Your task to perform on an android device: clear all cookies in the chrome app Image 0: 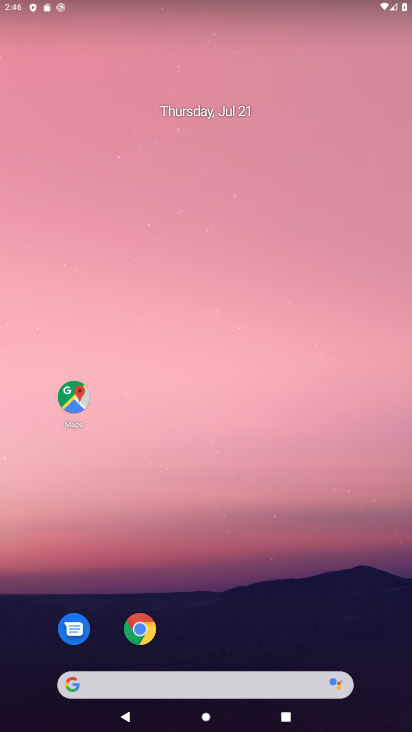
Step 0: drag from (239, 637) to (216, 2)
Your task to perform on an android device: clear all cookies in the chrome app Image 1: 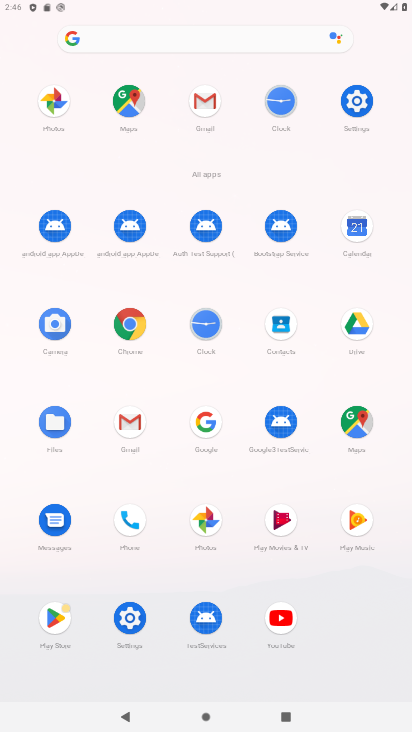
Step 1: click (129, 331)
Your task to perform on an android device: clear all cookies in the chrome app Image 2: 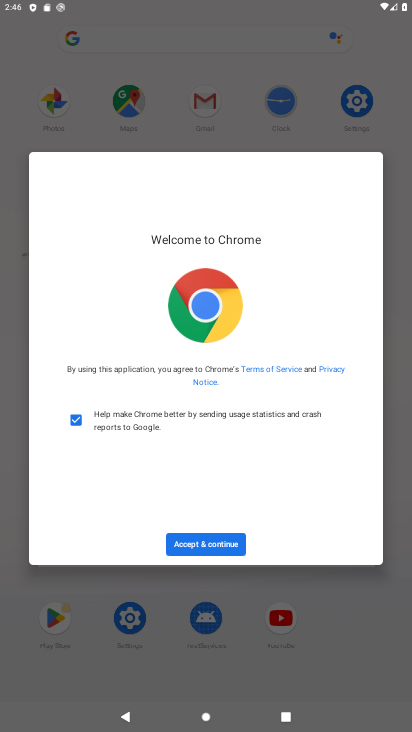
Step 2: click (207, 546)
Your task to perform on an android device: clear all cookies in the chrome app Image 3: 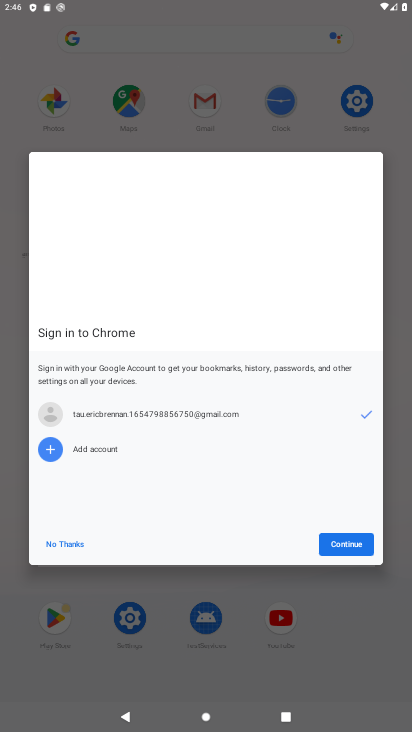
Step 3: click (345, 545)
Your task to perform on an android device: clear all cookies in the chrome app Image 4: 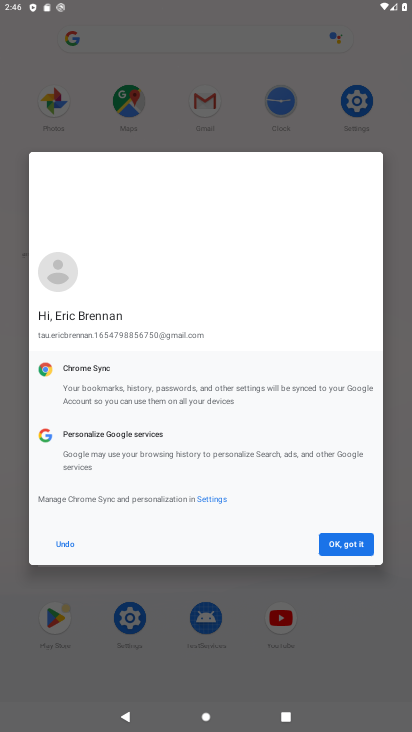
Step 4: click (345, 545)
Your task to perform on an android device: clear all cookies in the chrome app Image 5: 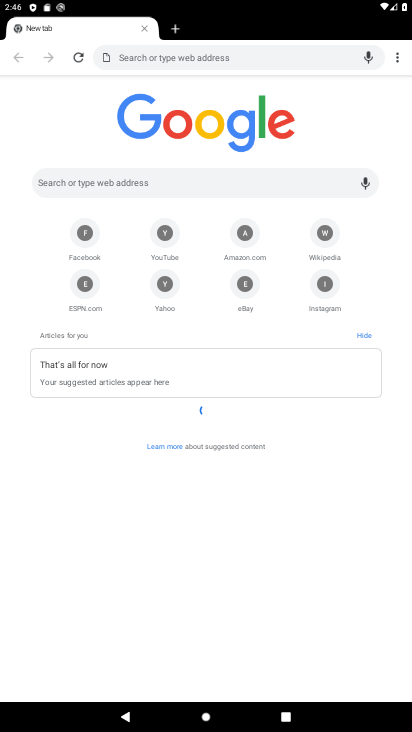
Step 5: click (401, 57)
Your task to perform on an android device: clear all cookies in the chrome app Image 6: 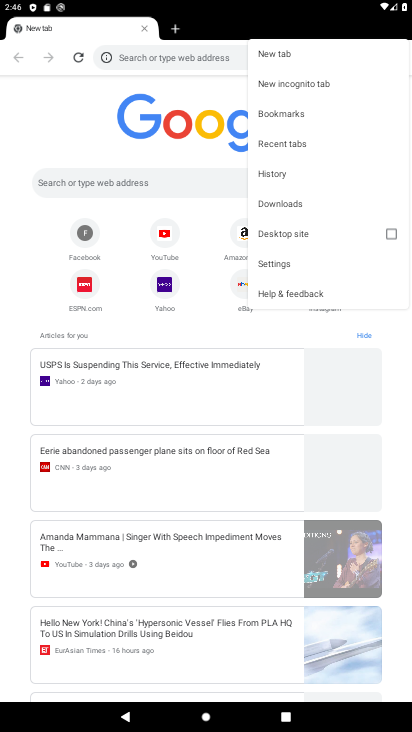
Step 6: click (270, 174)
Your task to perform on an android device: clear all cookies in the chrome app Image 7: 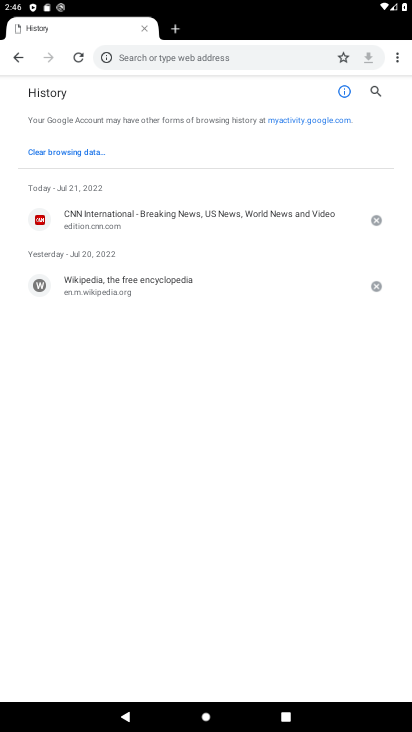
Step 7: click (49, 149)
Your task to perform on an android device: clear all cookies in the chrome app Image 8: 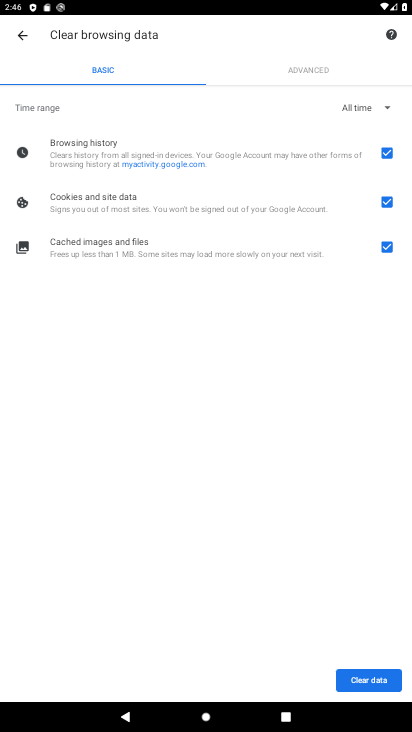
Step 8: click (390, 254)
Your task to perform on an android device: clear all cookies in the chrome app Image 9: 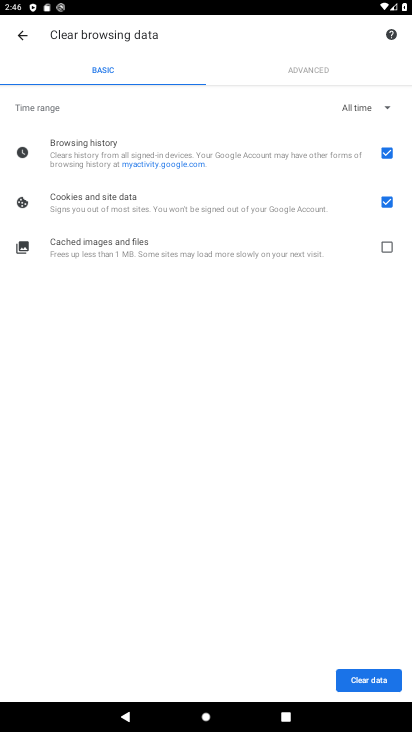
Step 9: click (384, 157)
Your task to perform on an android device: clear all cookies in the chrome app Image 10: 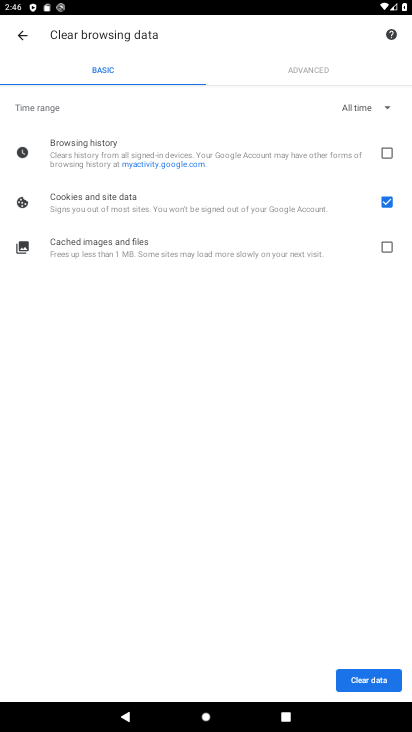
Step 10: click (373, 684)
Your task to perform on an android device: clear all cookies in the chrome app Image 11: 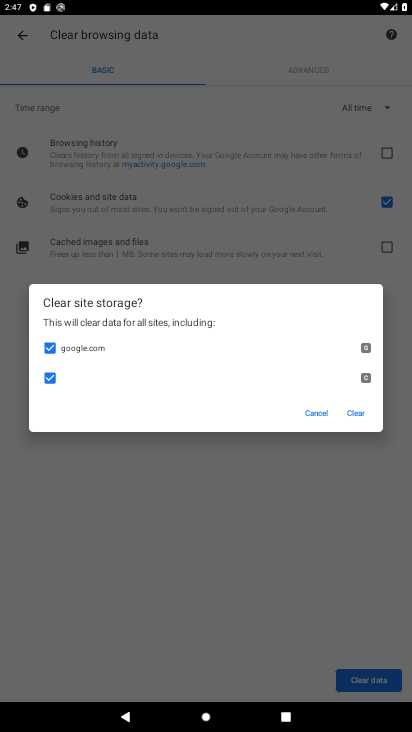
Step 11: click (360, 415)
Your task to perform on an android device: clear all cookies in the chrome app Image 12: 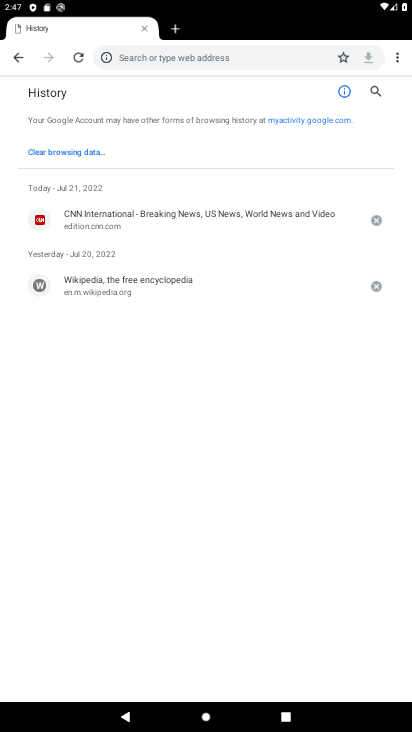
Step 12: task complete